Your task to perform on an android device: Open Youtube and go to "Your channel" Image 0: 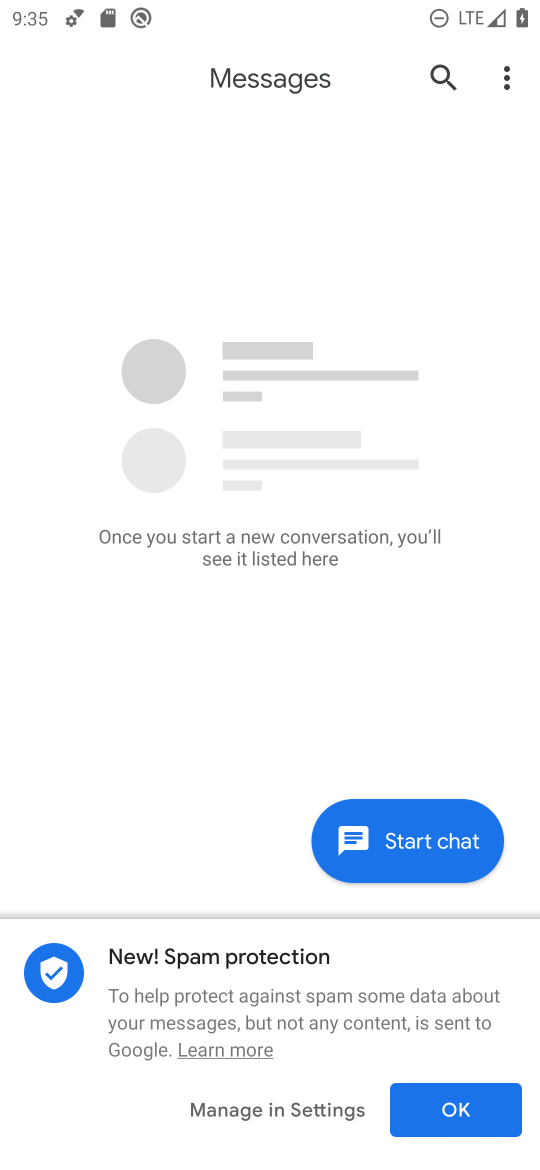
Step 0: press home button
Your task to perform on an android device: Open Youtube and go to "Your channel" Image 1: 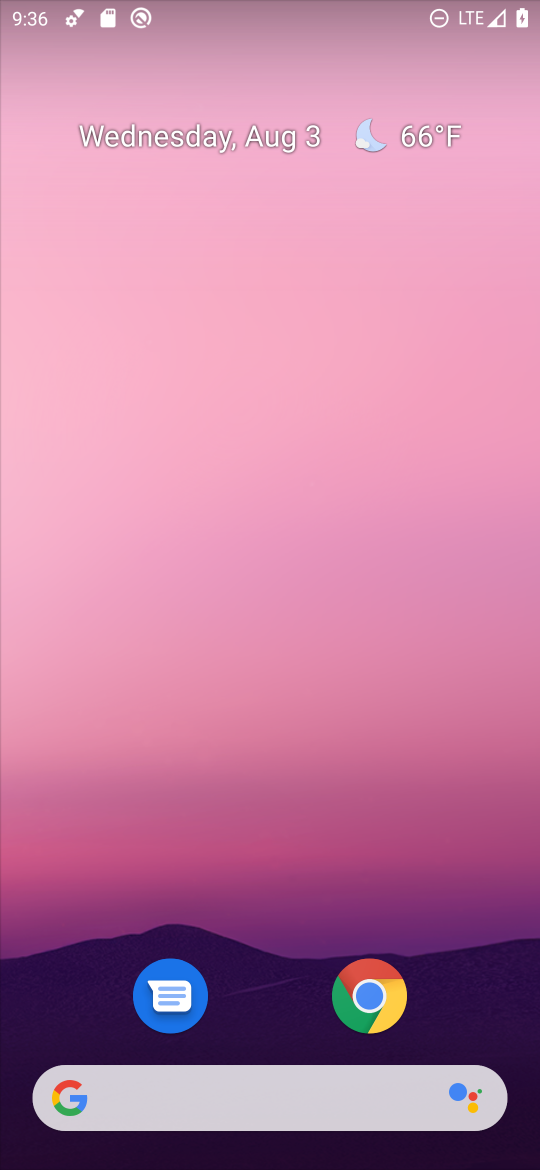
Step 1: drag from (296, 935) to (311, 69)
Your task to perform on an android device: Open Youtube and go to "Your channel" Image 2: 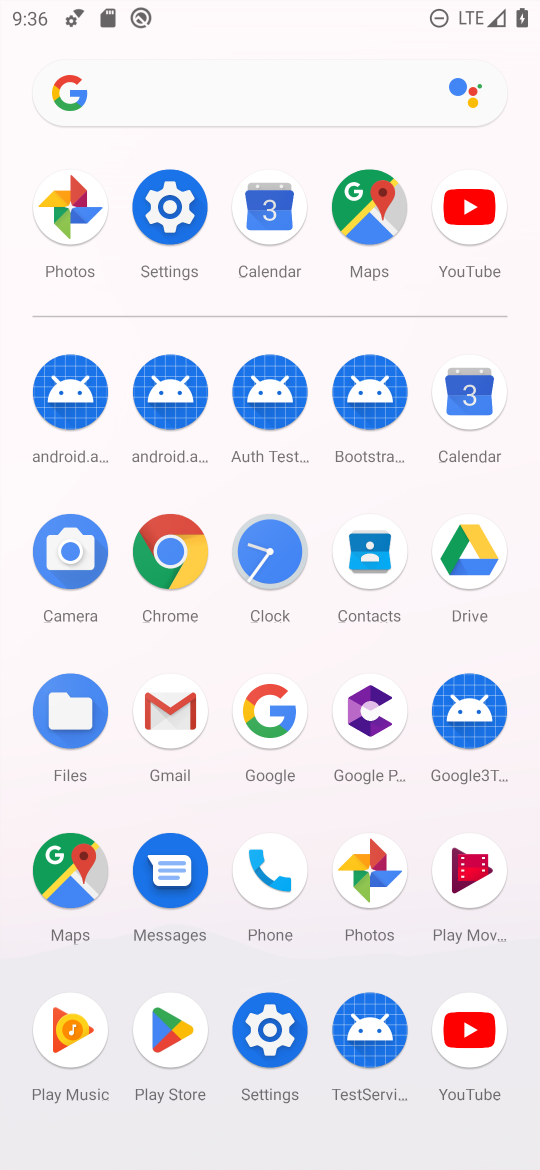
Step 2: click (455, 206)
Your task to perform on an android device: Open Youtube and go to "Your channel" Image 3: 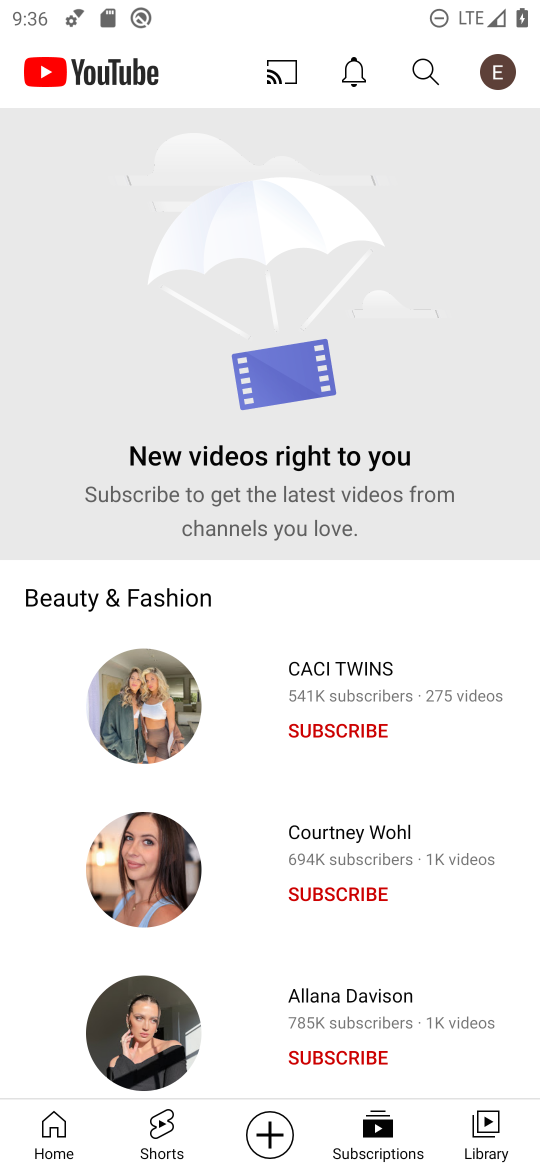
Step 3: click (496, 72)
Your task to perform on an android device: Open Youtube and go to "Your channel" Image 4: 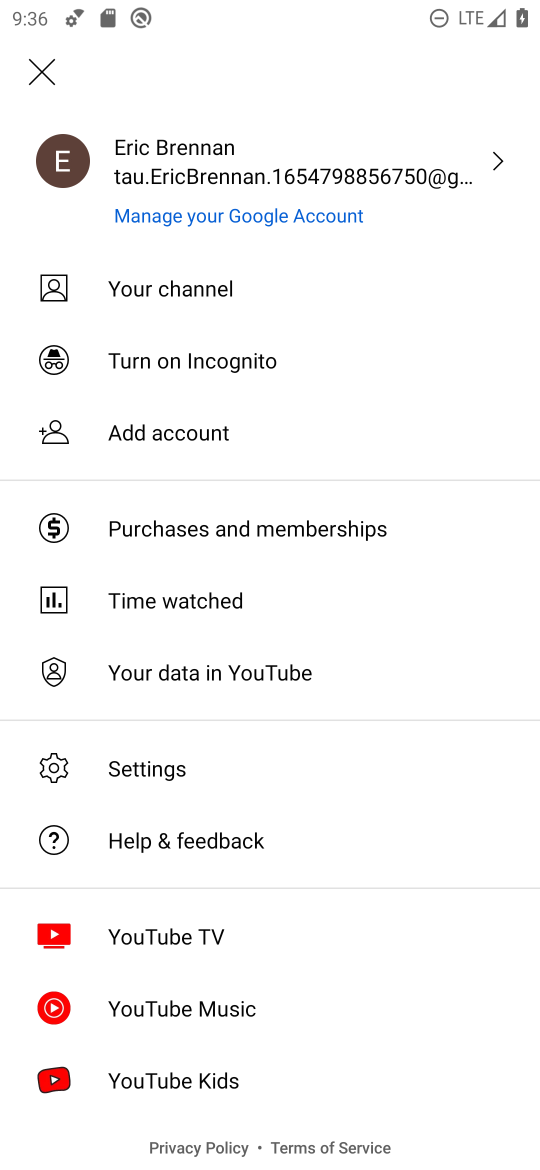
Step 4: click (208, 282)
Your task to perform on an android device: Open Youtube and go to "Your channel" Image 5: 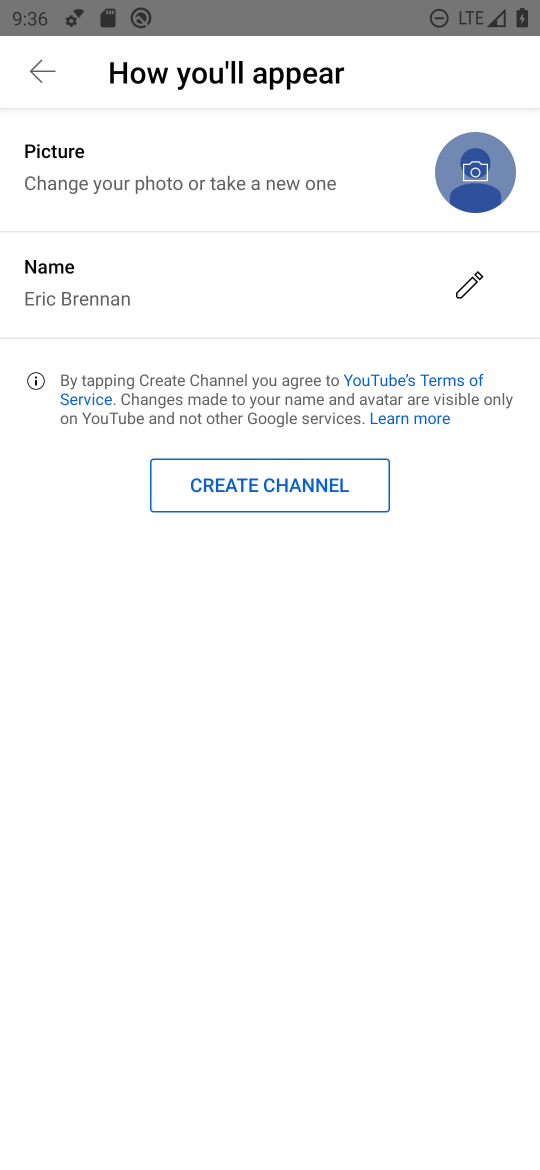
Step 5: task complete